Your task to perform on an android device: Go to eBay Image 0: 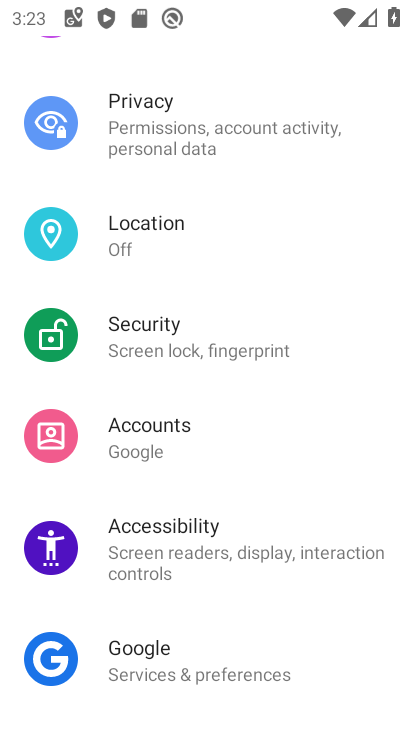
Step 0: press home button
Your task to perform on an android device: Go to eBay Image 1: 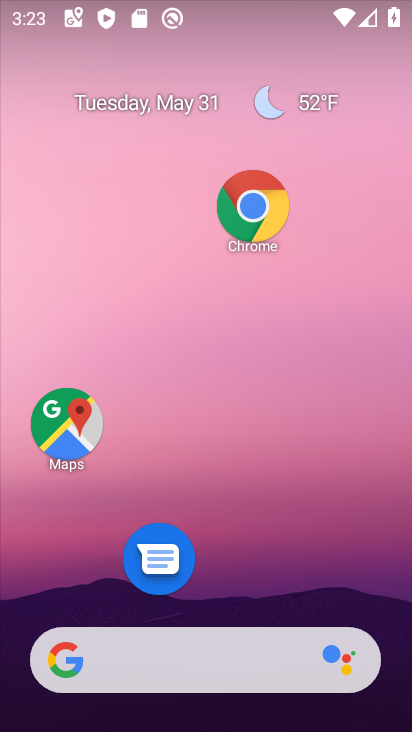
Step 1: click (247, 213)
Your task to perform on an android device: Go to eBay Image 2: 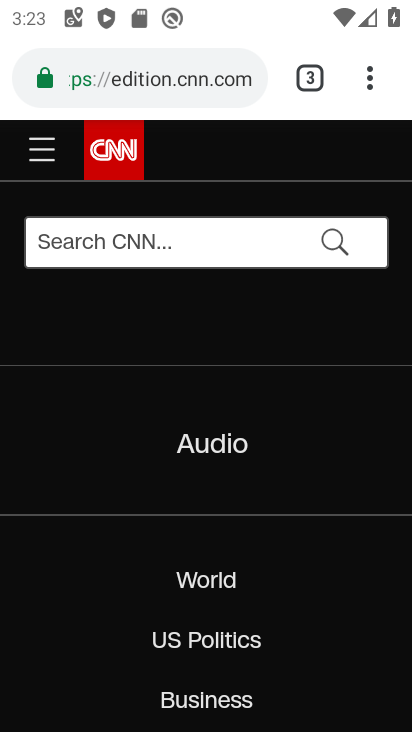
Step 2: click (310, 87)
Your task to perform on an android device: Go to eBay Image 3: 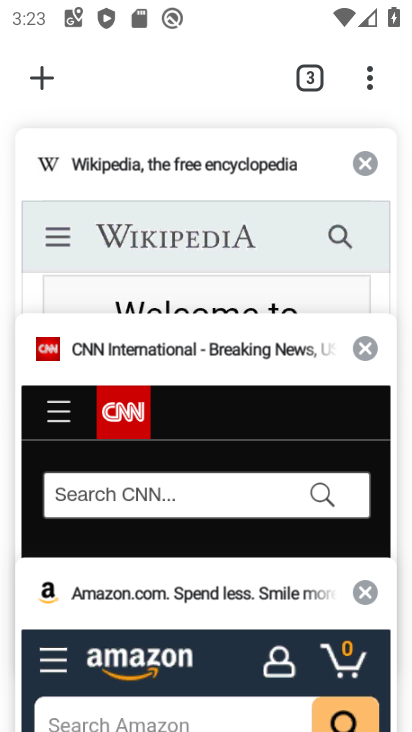
Step 3: click (43, 79)
Your task to perform on an android device: Go to eBay Image 4: 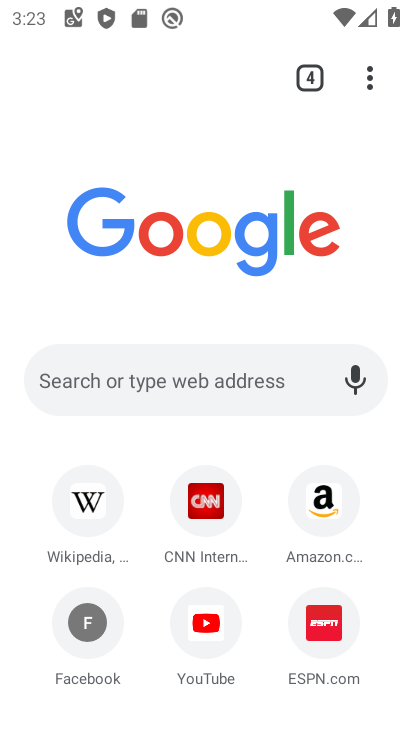
Step 4: click (159, 353)
Your task to perform on an android device: Go to eBay Image 5: 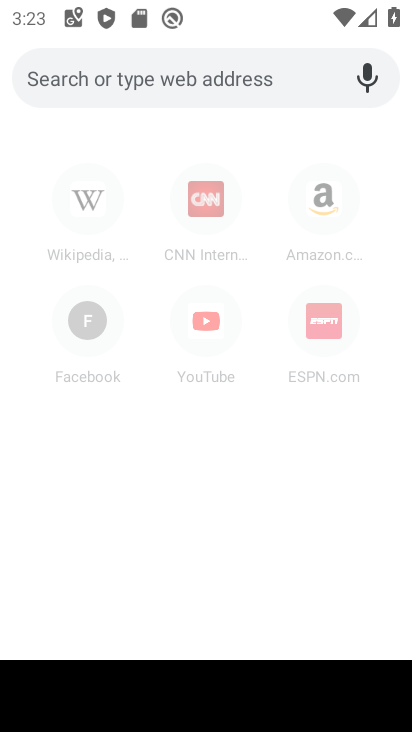
Step 5: type "eBay"
Your task to perform on an android device: Go to eBay Image 6: 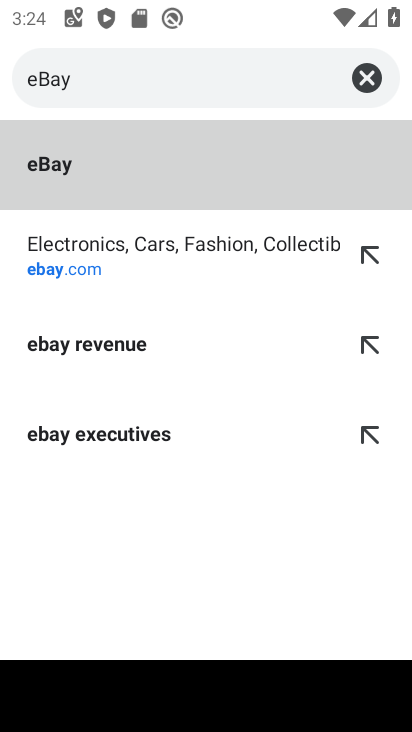
Step 6: click (35, 187)
Your task to perform on an android device: Go to eBay Image 7: 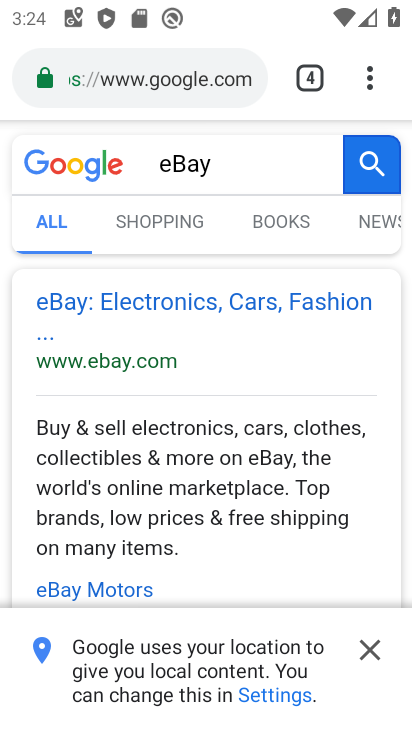
Step 7: click (115, 303)
Your task to perform on an android device: Go to eBay Image 8: 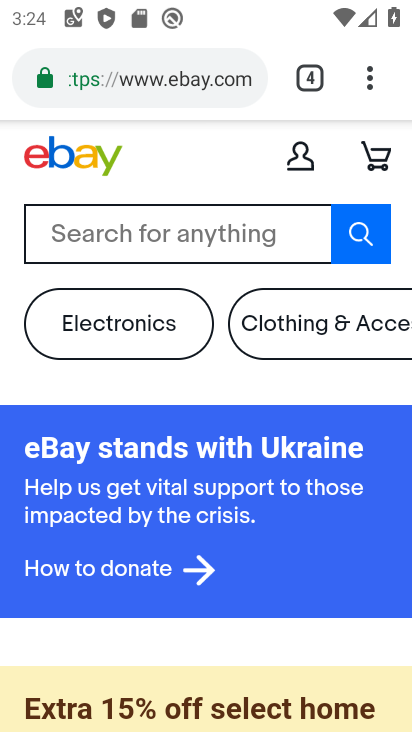
Step 8: task complete